Your task to perform on an android device: Search for sushi restaurants on Maps Image 0: 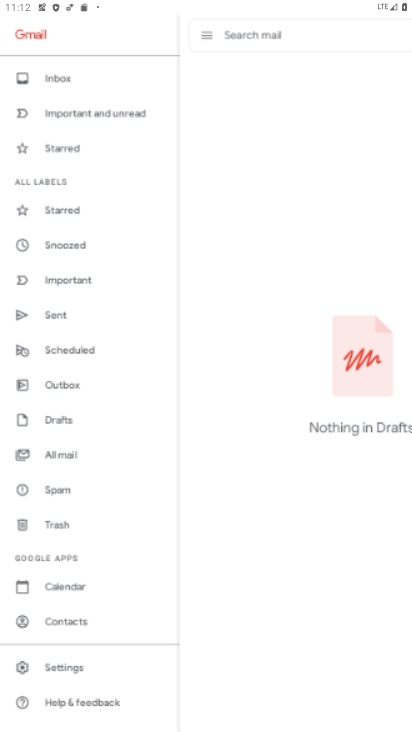
Step 0: drag from (292, 712) to (190, 57)
Your task to perform on an android device: Search for sushi restaurants on Maps Image 1: 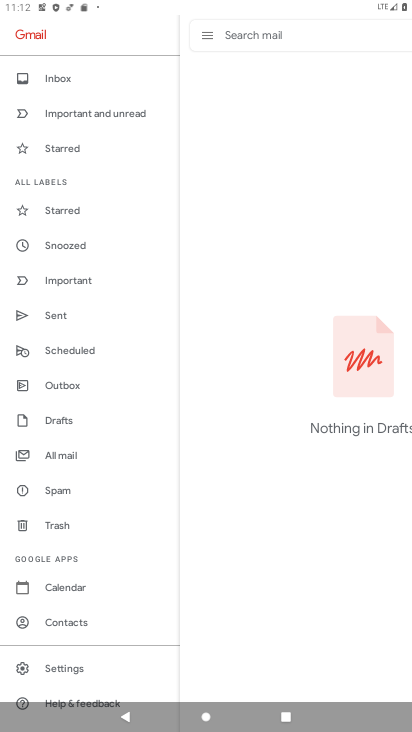
Step 1: press back button
Your task to perform on an android device: Search for sushi restaurants on Maps Image 2: 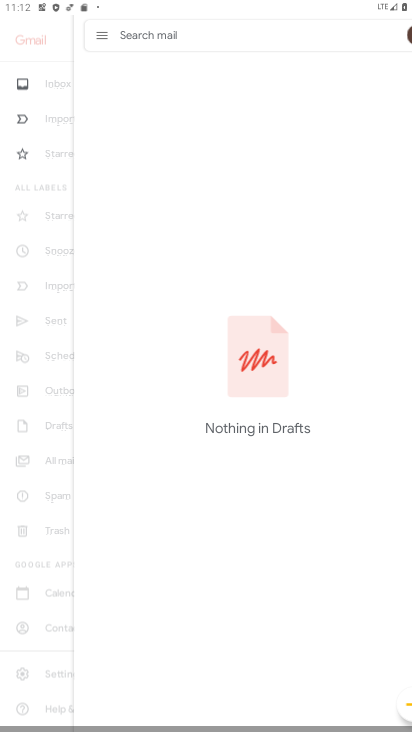
Step 2: press back button
Your task to perform on an android device: Search for sushi restaurants on Maps Image 3: 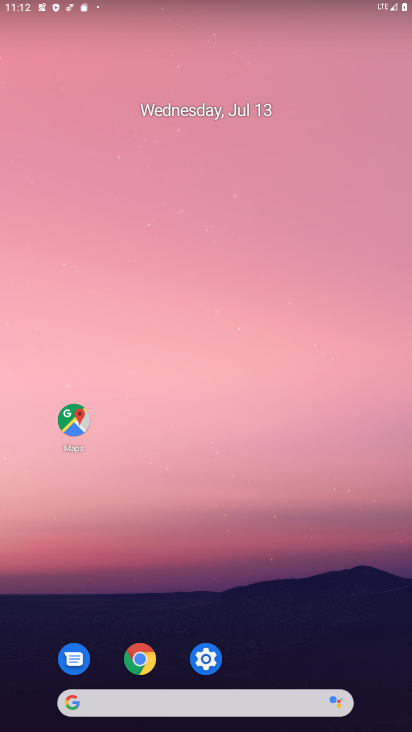
Step 3: click (159, 229)
Your task to perform on an android device: Search for sushi restaurants on Maps Image 4: 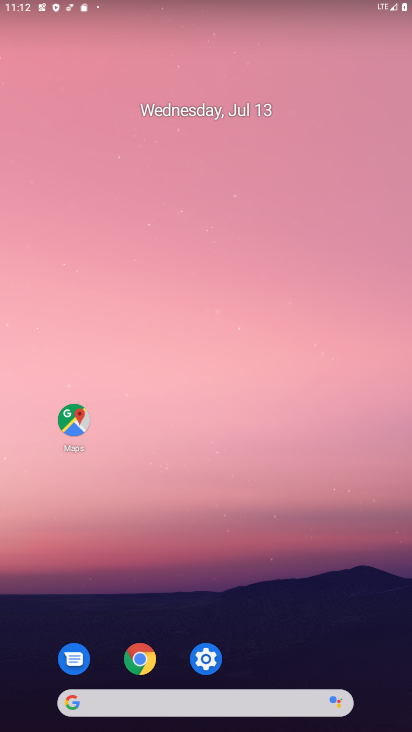
Step 4: click (190, 230)
Your task to perform on an android device: Search for sushi restaurants on Maps Image 5: 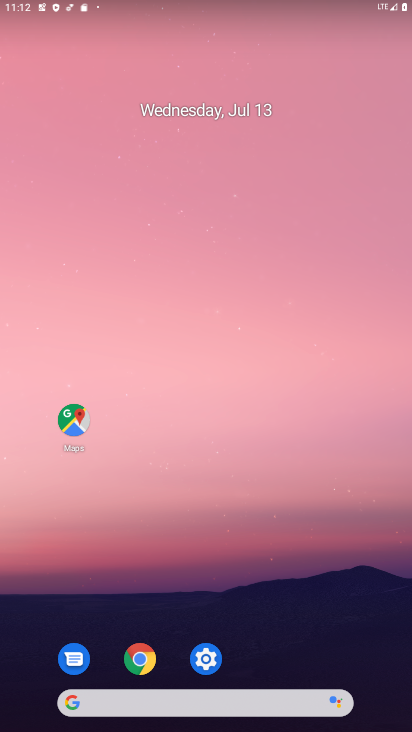
Step 5: drag from (318, 705) to (137, 9)
Your task to perform on an android device: Search for sushi restaurants on Maps Image 6: 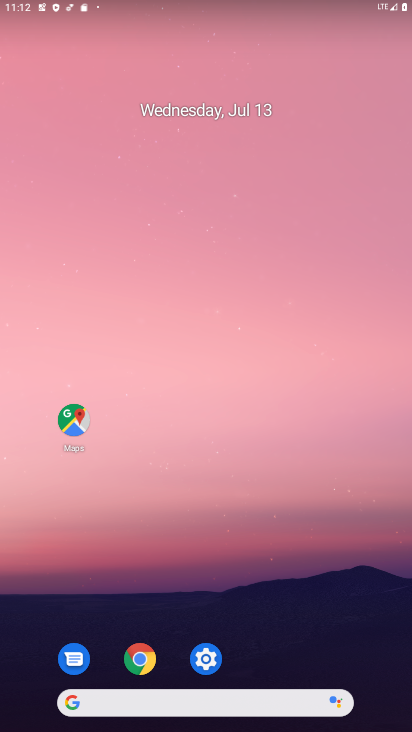
Step 6: drag from (307, 626) to (254, 176)
Your task to perform on an android device: Search for sushi restaurants on Maps Image 7: 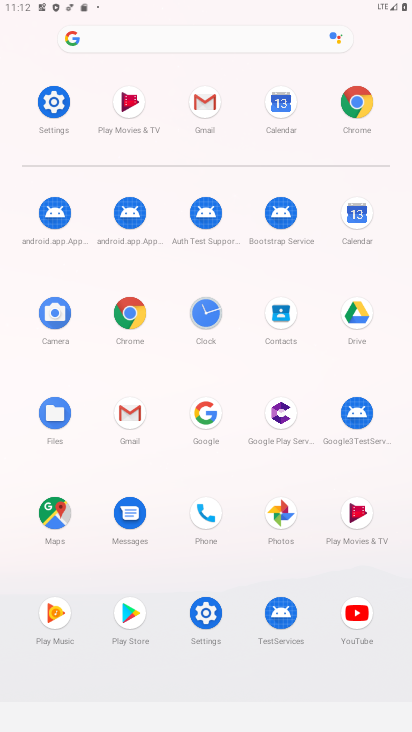
Step 7: click (197, 91)
Your task to perform on an android device: Search for sushi restaurants on Maps Image 8: 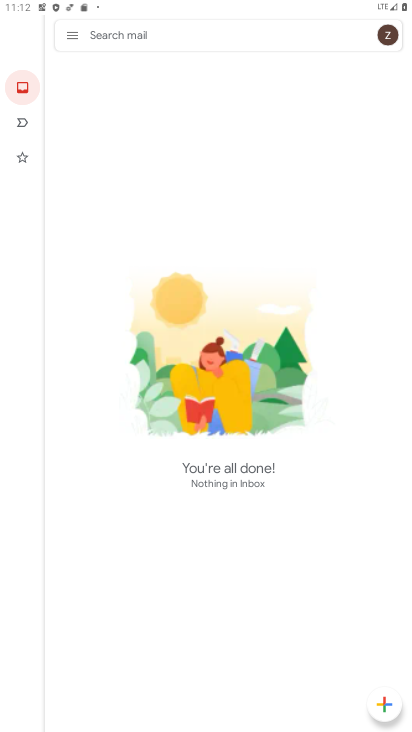
Step 8: press back button
Your task to perform on an android device: Search for sushi restaurants on Maps Image 9: 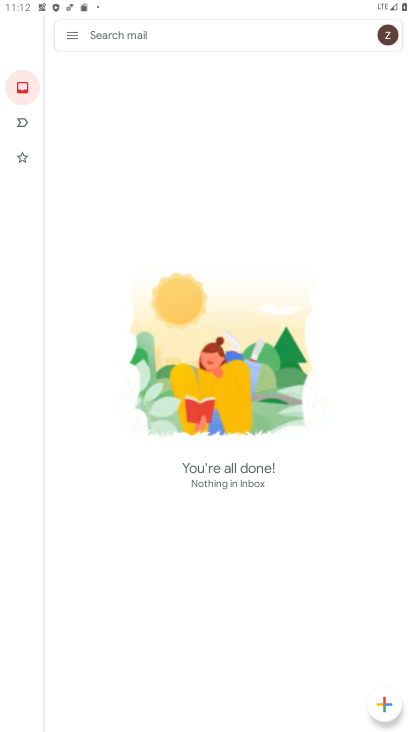
Step 9: press back button
Your task to perform on an android device: Search for sushi restaurants on Maps Image 10: 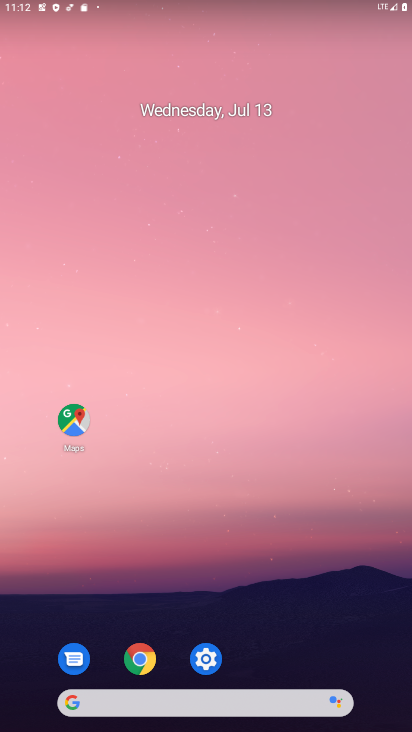
Step 10: drag from (249, 719) to (59, 129)
Your task to perform on an android device: Search for sushi restaurants on Maps Image 11: 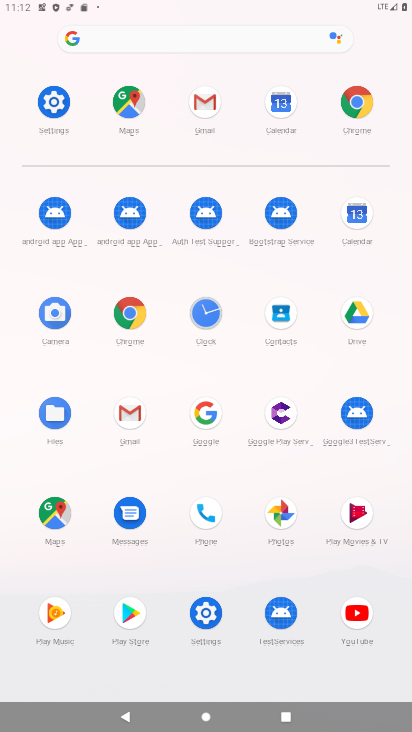
Step 11: drag from (230, 570) to (191, 208)
Your task to perform on an android device: Search for sushi restaurants on Maps Image 12: 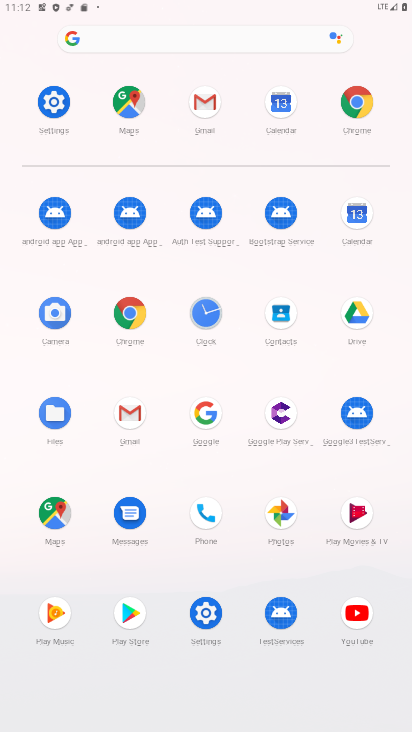
Step 12: click (132, 101)
Your task to perform on an android device: Search for sushi restaurants on Maps Image 13: 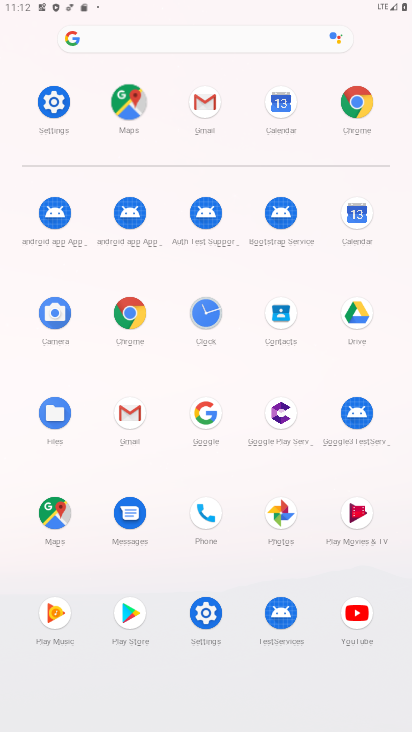
Step 13: click (132, 101)
Your task to perform on an android device: Search for sushi restaurants on Maps Image 14: 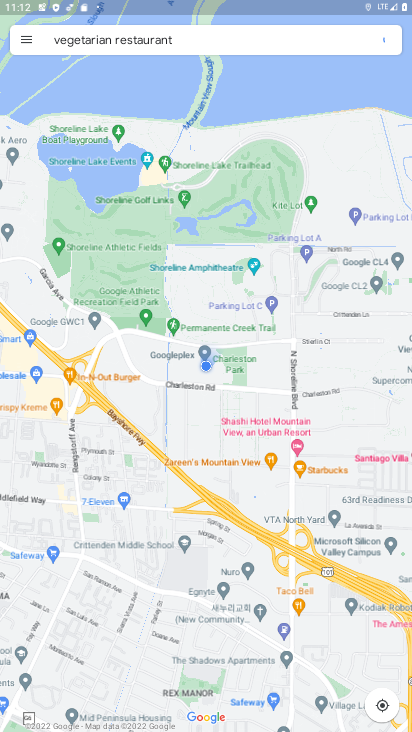
Step 14: click (81, 38)
Your task to perform on an android device: Search for sushi restaurants on Maps Image 15: 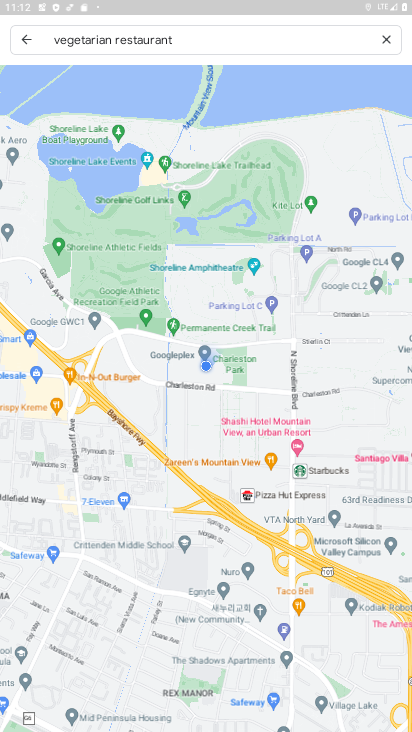
Step 15: click (81, 38)
Your task to perform on an android device: Search for sushi restaurants on Maps Image 16: 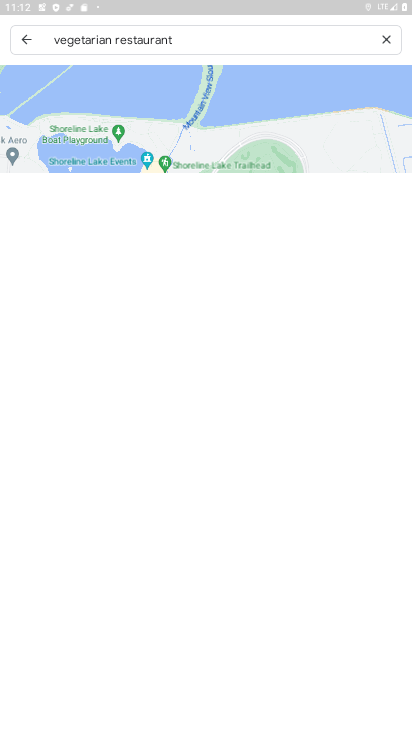
Step 16: click (86, 43)
Your task to perform on an android device: Search for sushi restaurants on Maps Image 17: 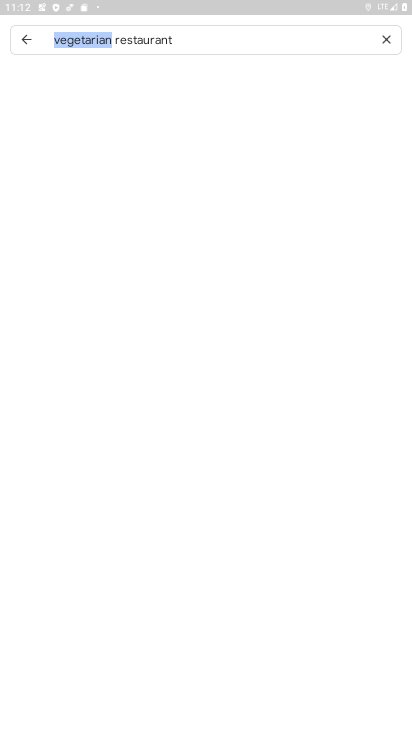
Step 17: click (86, 43)
Your task to perform on an android device: Search for sushi restaurants on Maps Image 18: 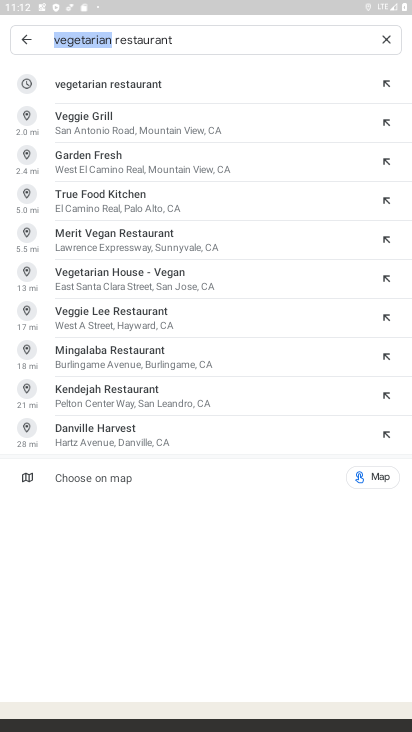
Step 18: click (86, 43)
Your task to perform on an android device: Search for sushi restaurants on Maps Image 19: 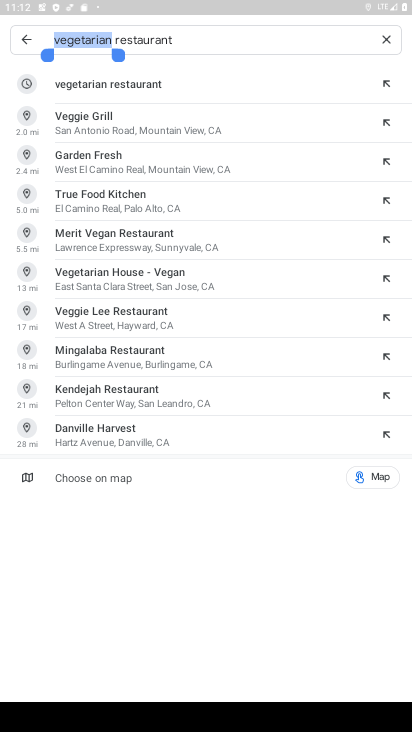
Step 19: click (86, 43)
Your task to perform on an android device: Search for sushi restaurants on Maps Image 20: 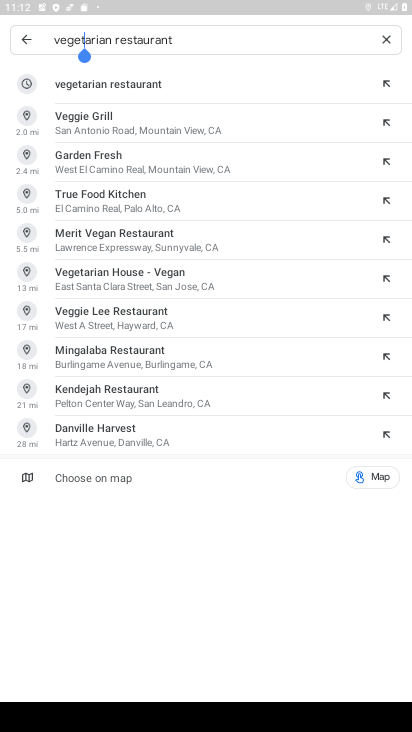
Step 20: click (392, 38)
Your task to perform on an android device: Search for sushi restaurants on Maps Image 21: 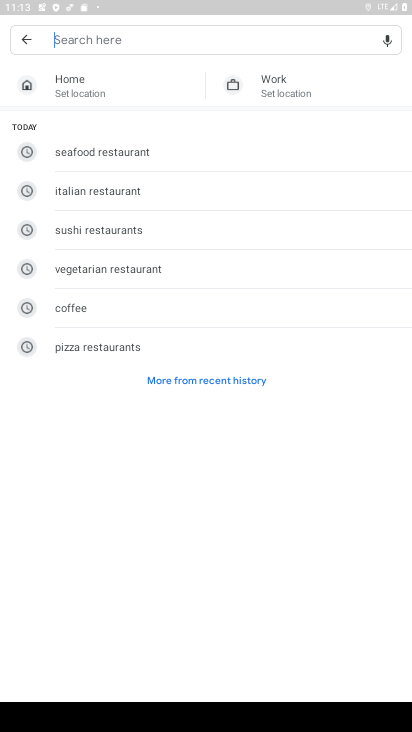
Step 21: click (91, 227)
Your task to perform on an android device: Search for sushi restaurants on Maps Image 22: 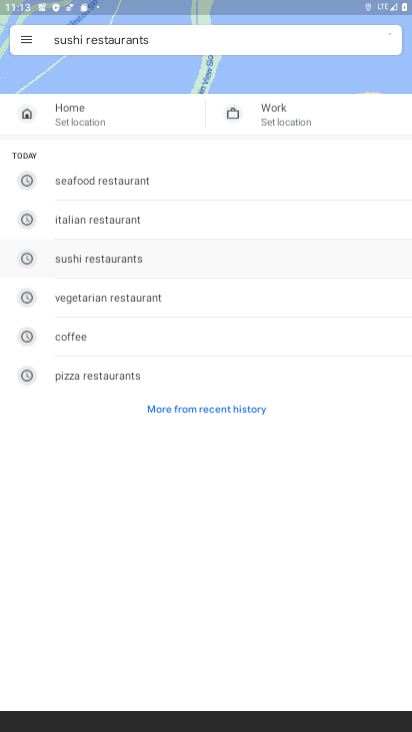
Step 22: click (91, 226)
Your task to perform on an android device: Search for sushi restaurants on Maps Image 23: 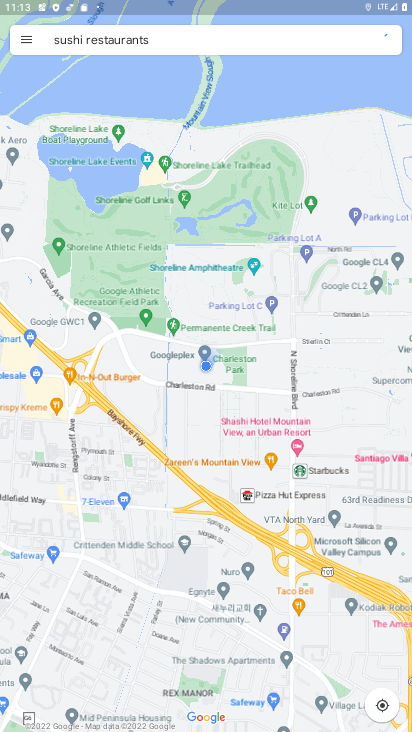
Step 23: task complete